Your task to perform on an android device: set the timer Image 0: 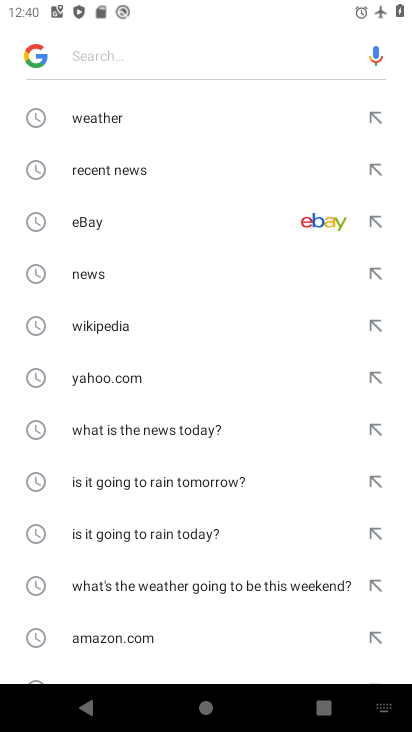
Step 0: press home button
Your task to perform on an android device: set the timer Image 1: 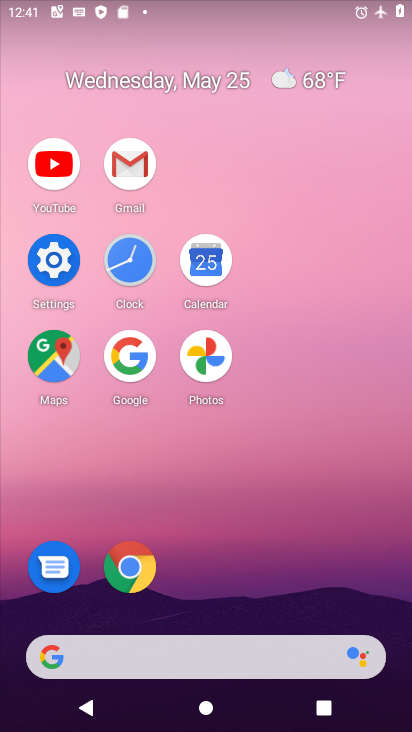
Step 1: click (127, 272)
Your task to perform on an android device: set the timer Image 2: 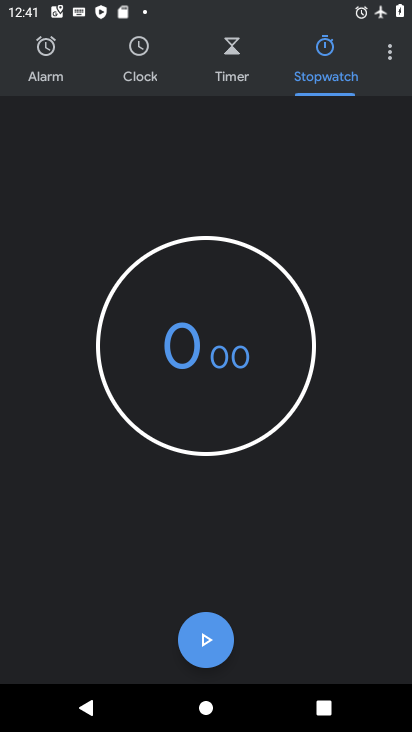
Step 2: click (233, 78)
Your task to perform on an android device: set the timer Image 3: 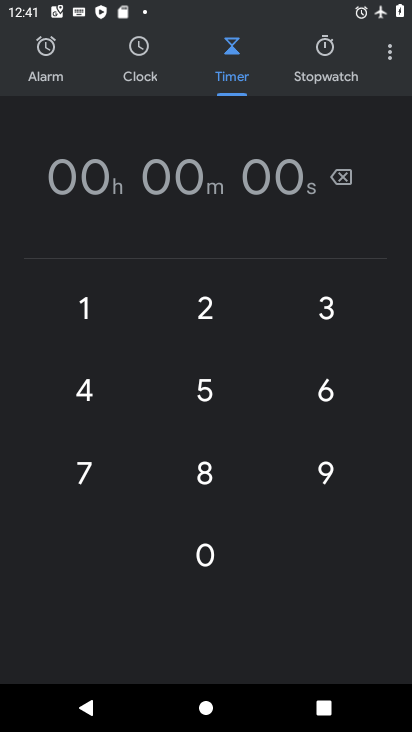
Step 3: click (208, 296)
Your task to perform on an android device: set the timer Image 4: 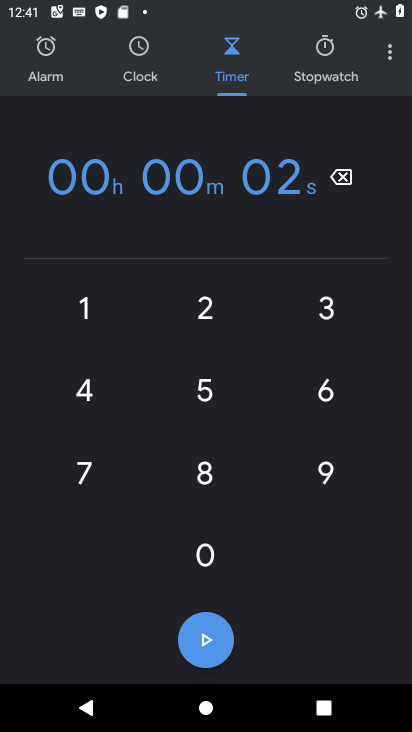
Step 4: click (208, 296)
Your task to perform on an android device: set the timer Image 5: 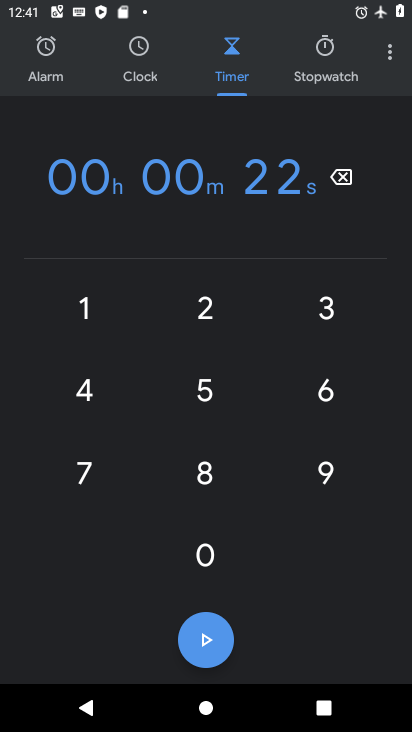
Step 5: click (192, 639)
Your task to perform on an android device: set the timer Image 6: 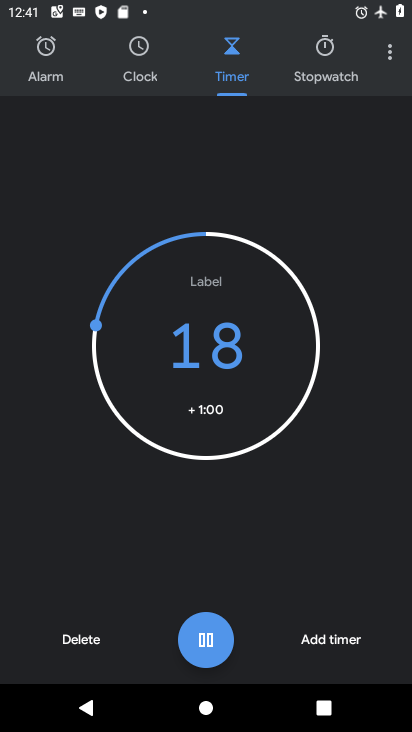
Step 6: task complete